Your task to perform on an android device: What's the weather today? Image 0: 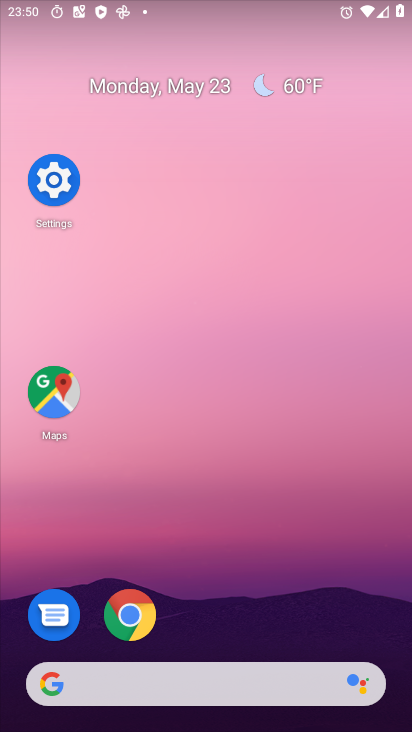
Step 0: drag from (231, 580) to (224, 79)
Your task to perform on an android device: What's the weather today? Image 1: 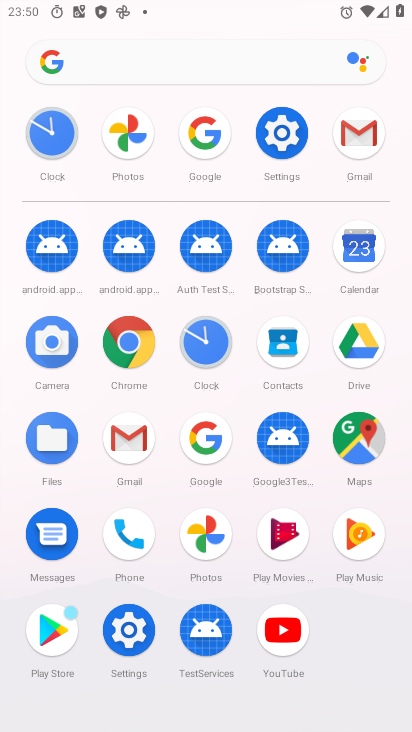
Step 1: click (194, 449)
Your task to perform on an android device: What's the weather today? Image 2: 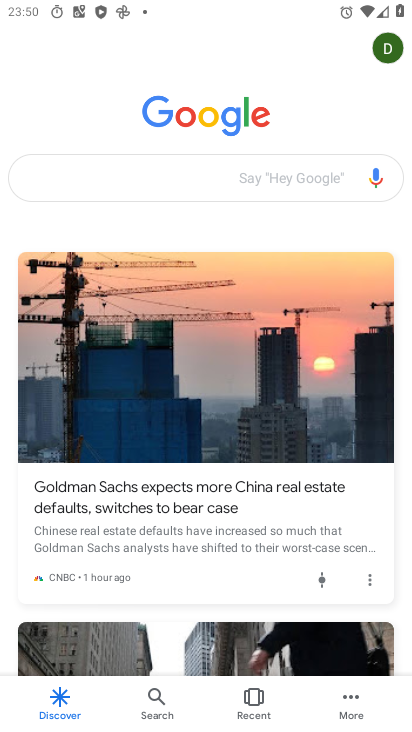
Step 2: click (245, 186)
Your task to perform on an android device: What's the weather today? Image 3: 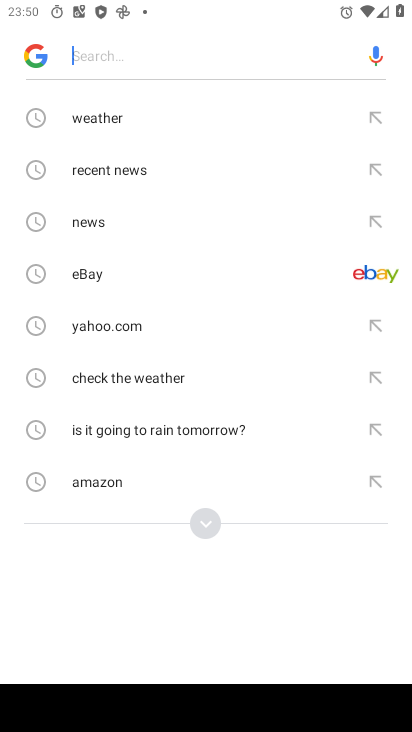
Step 3: click (117, 116)
Your task to perform on an android device: What's the weather today? Image 4: 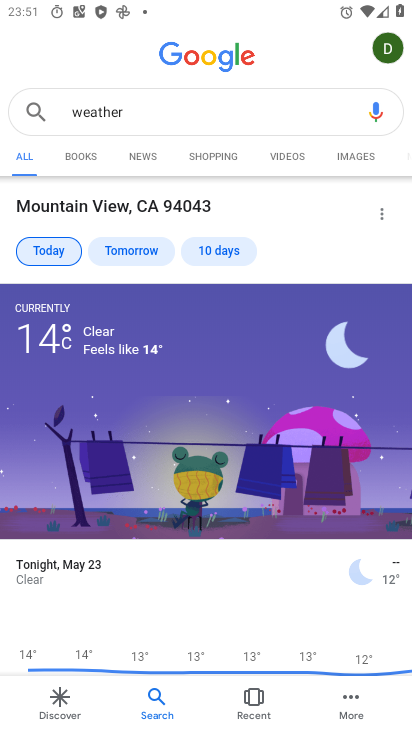
Step 4: task complete